Your task to perform on an android device: Open notification settings Image 0: 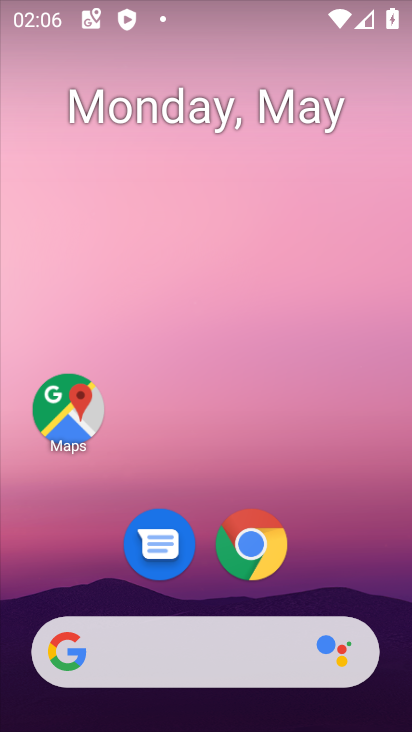
Step 0: drag from (343, 585) to (353, 278)
Your task to perform on an android device: Open notification settings Image 1: 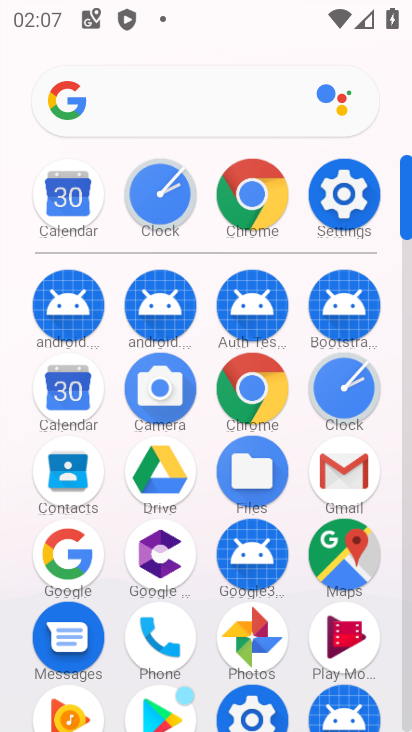
Step 1: click (340, 212)
Your task to perform on an android device: Open notification settings Image 2: 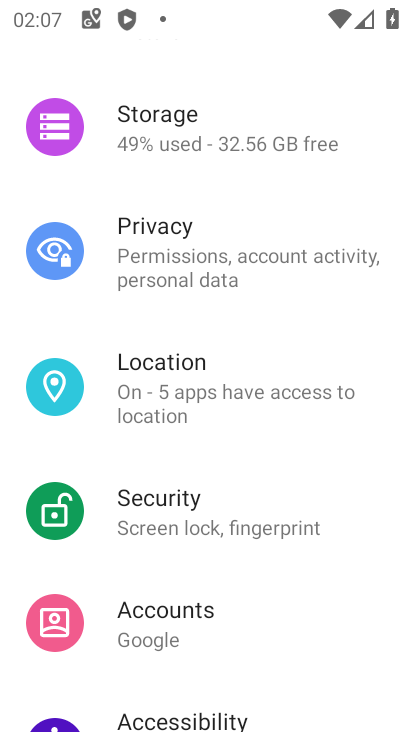
Step 2: drag from (305, 346) to (300, 428)
Your task to perform on an android device: Open notification settings Image 3: 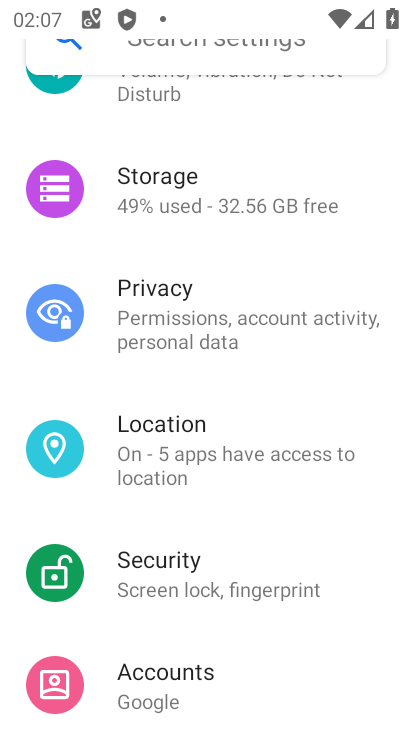
Step 3: drag from (304, 372) to (312, 482)
Your task to perform on an android device: Open notification settings Image 4: 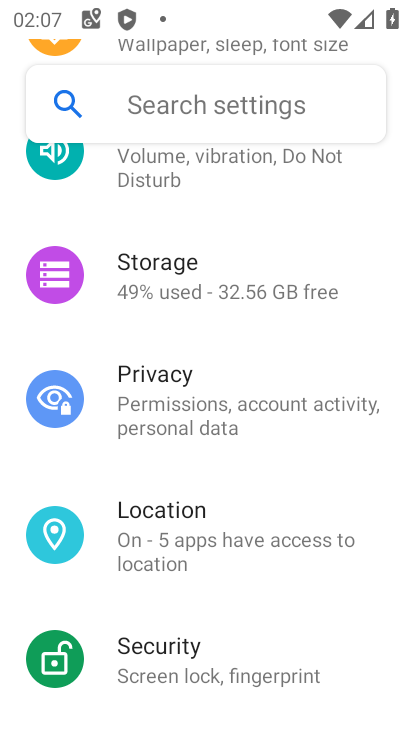
Step 4: drag from (337, 313) to (337, 431)
Your task to perform on an android device: Open notification settings Image 5: 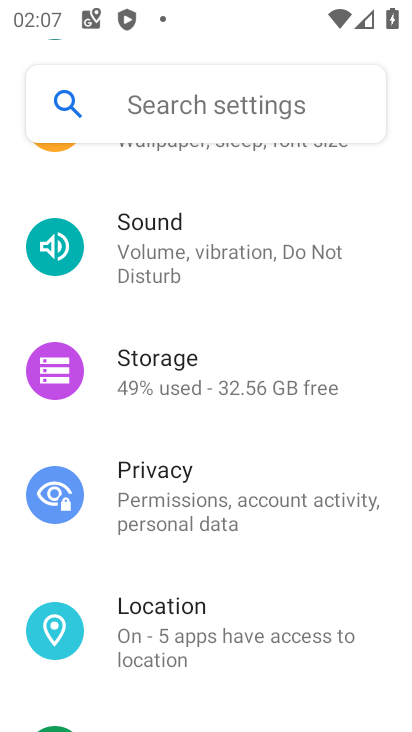
Step 5: drag from (351, 294) to (352, 388)
Your task to perform on an android device: Open notification settings Image 6: 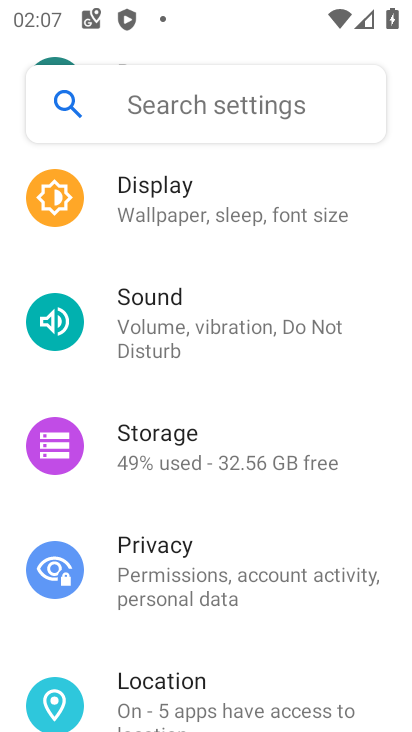
Step 6: drag from (359, 351) to (360, 459)
Your task to perform on an android device: Open notification settings Image 7: 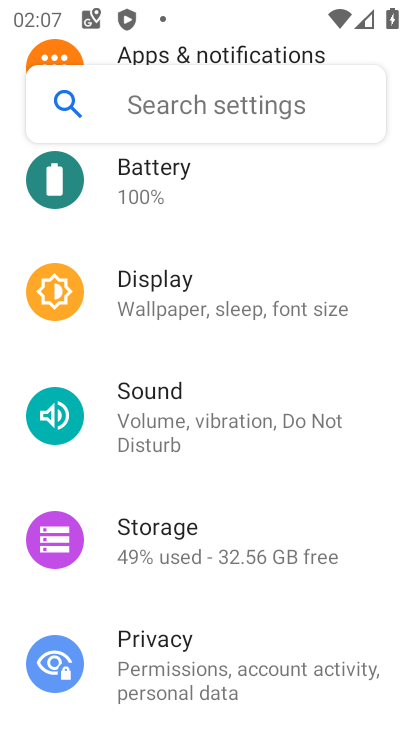
Step 7: drag from (360, 343) to (360, 453)
Your task to perform on an android device: Open notification settings Image 8: 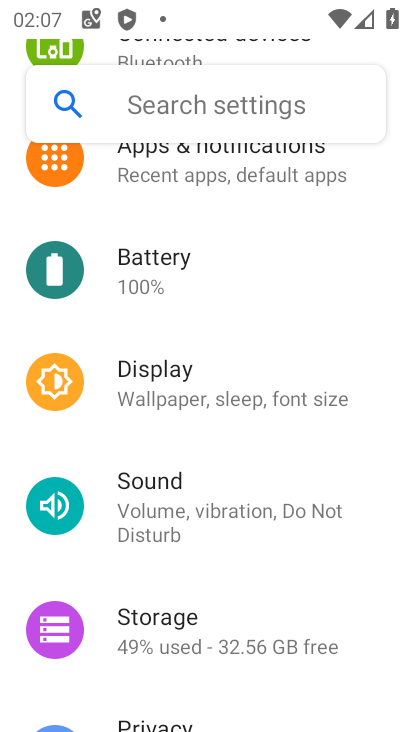
Step 8: drag from (365, 302) to (367, 420)
Your task to perform on an android device: Open notification settings Image 9: 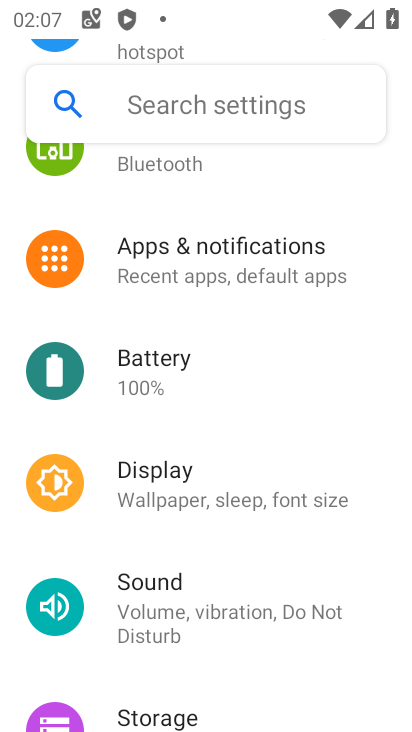
Step 9: drag from (366, 285) to (365, 391)
Your task to perform on an android device: Open notification settings Image 10: 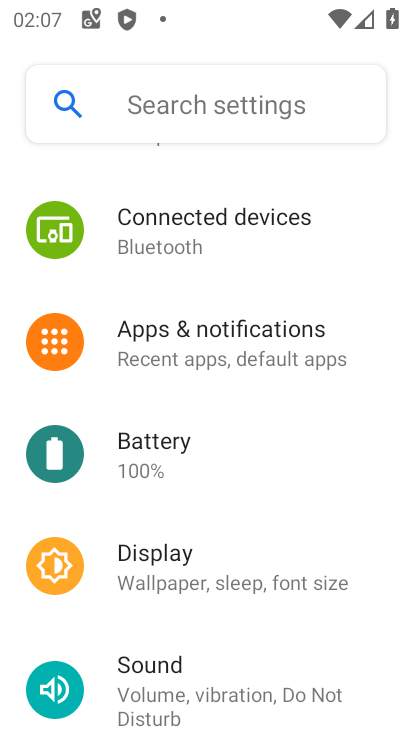
Step 10: click (363, 341)
Your task to perform on an android device: Open notification settings Image 11: 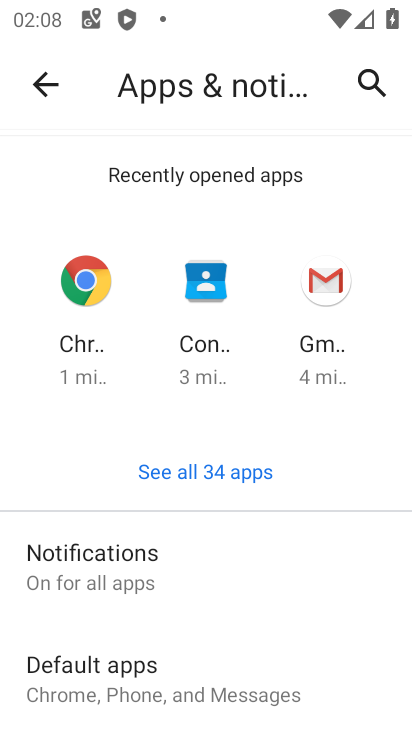
Step 11: click (219, 587)
Your task to perform on an android device: Open notification settings Image 12: 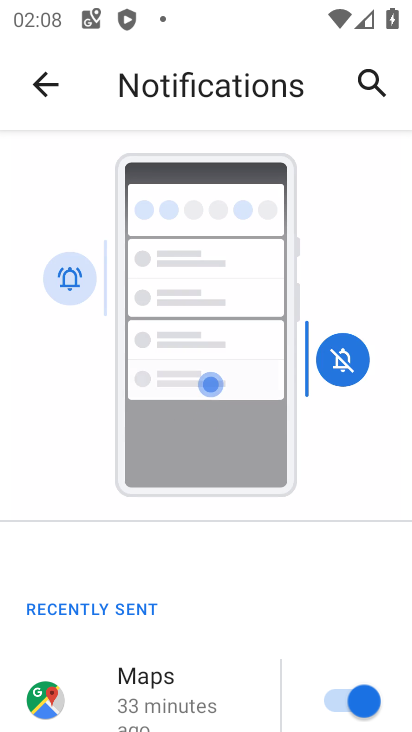
Step 12: drag from (229, 574) to (262, 462)
Your task to perform on an android device: Open notification settings Image 13: 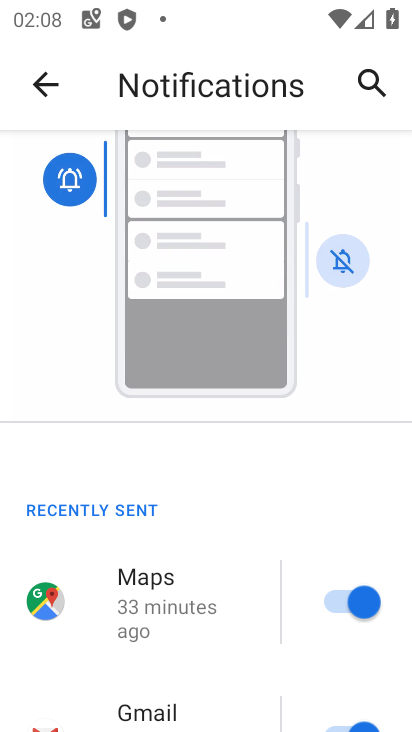
Step 13: click (265, 590)
Your task to perform on an android device: Open notification settings Image 14: 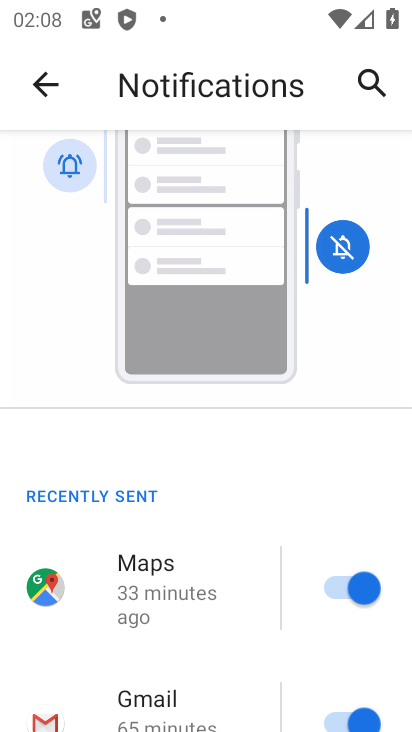
Step 14: click (275, 552)
Your task to perform on an android device: Open notification settings Image 15: 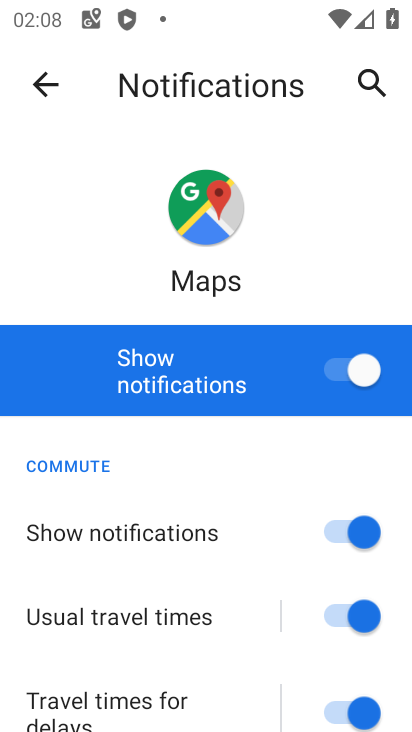
Step 15: task complete